Your task to perform on an android device: snooze an email in the gmail app Image 0: 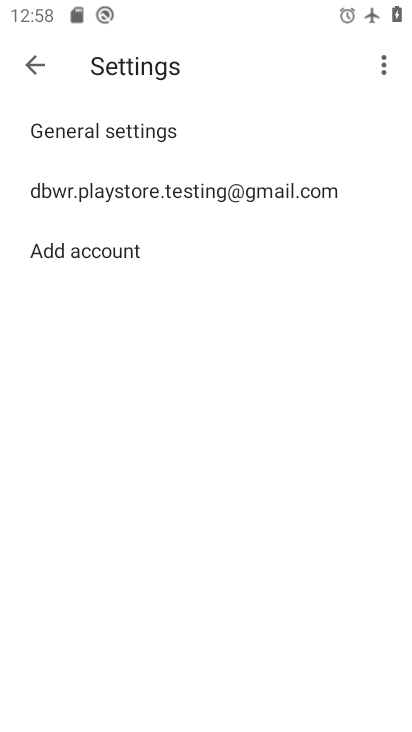
Step 0: press home button
Your task to perform on an android device: snooze an email in the gmail app Image 1: 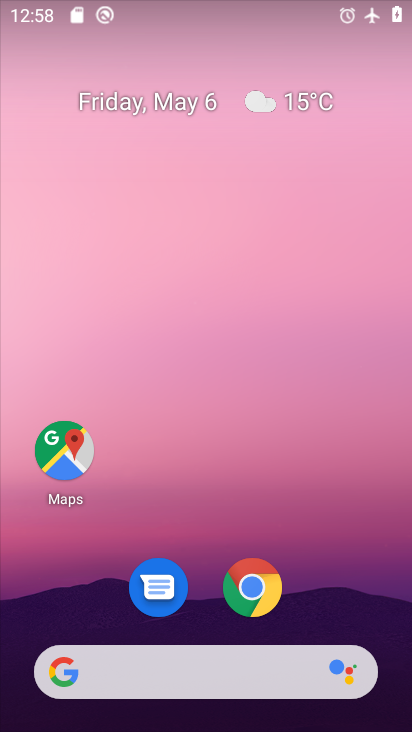
Step 1: drag from (345, 620) to (278, 10)
Your task to perform on an android device: snooze an email in the gmail app Image 2: 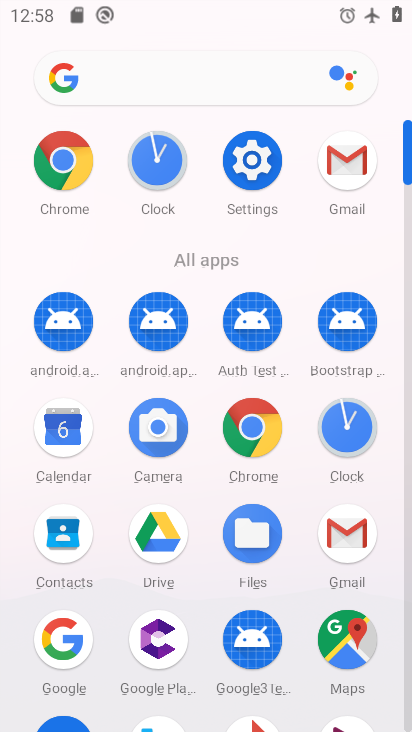
Step 2: click (353, 161)
Your task to perform on an android device: snooze an email in the gmail app Image 3: 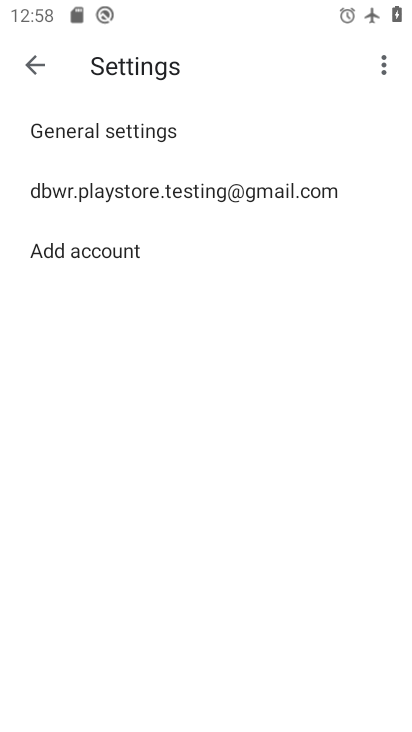
Step 3: click (34, 63)
Your task to perform on an android device: snooze an email in the gmail app Image 4: 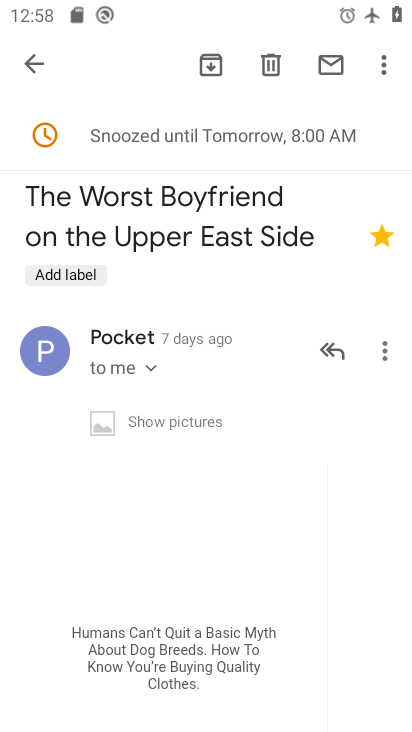
Step 4: click (36, 58)
Your task to perform on an android device: snooze an email in the gmail app Image 5: 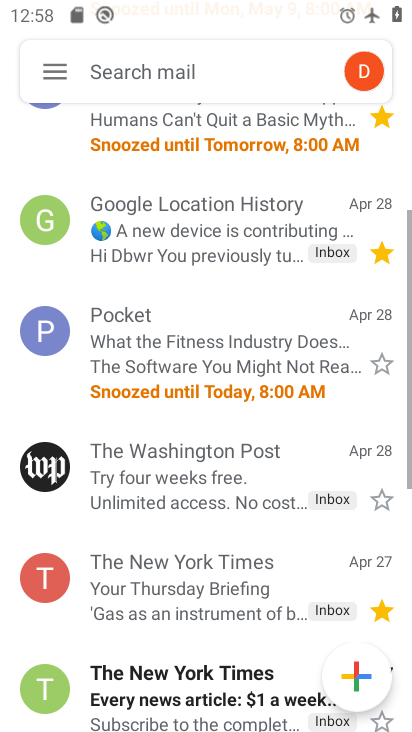
Step 5: click (201, 469)
Your task to perform on an android device: snooze an email in the gmail app Image 6: 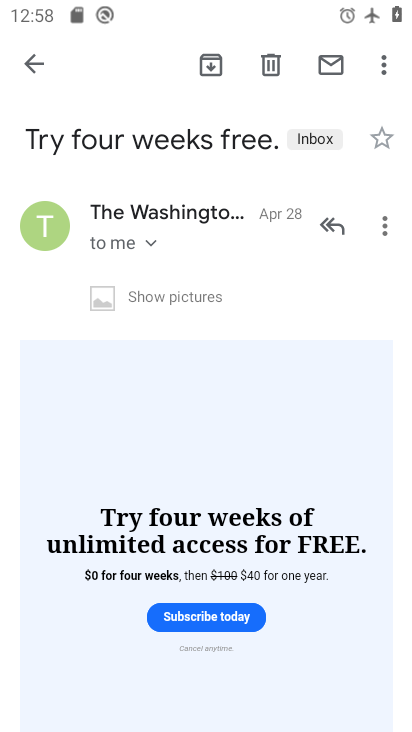
Step 6: click (376, 67)
Your task to perform on an android device: snooze an email in the gmail app Image 7: 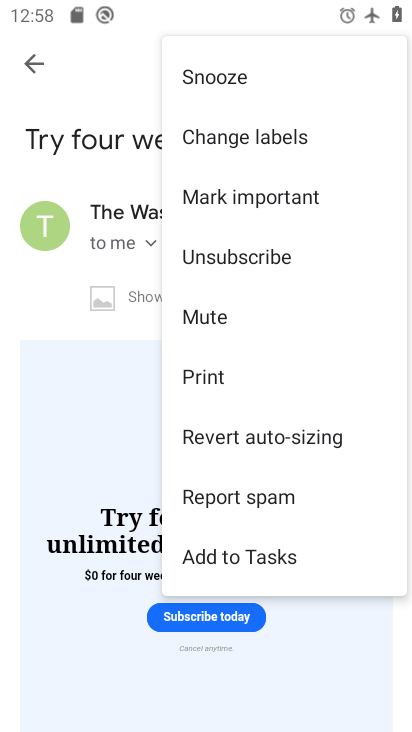
Step 7: click (231, 76)
Your task to perform on an android device: snooze an email in the gmail app Image 8: 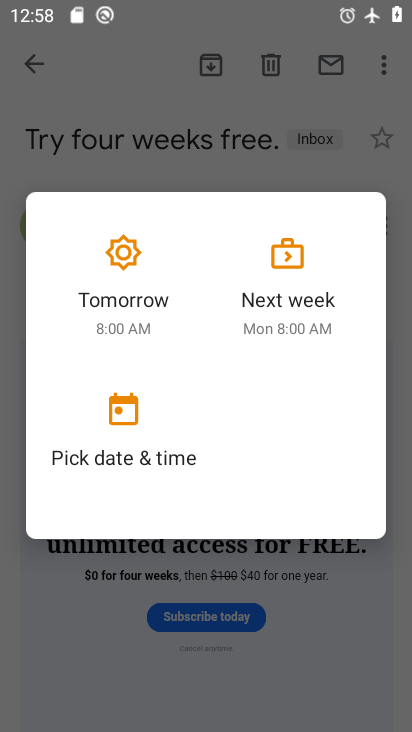
Step 8: click (289, 294)
Your task to perform on an android device: snooze an email in the gmail app Image 9: 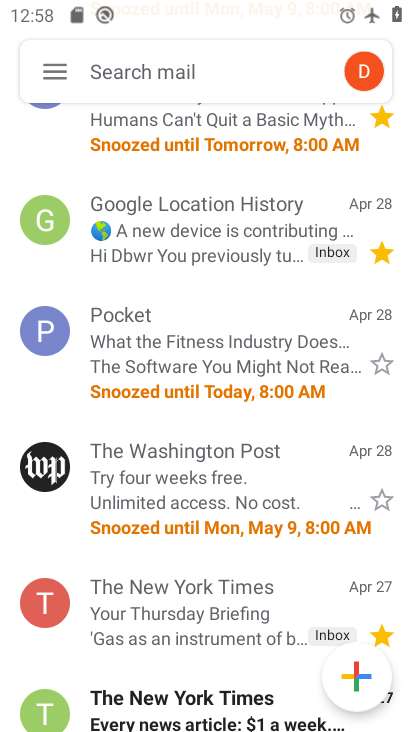
Step 9: task complete